Your task to perform on an android device: turn notification dots on Image 0: 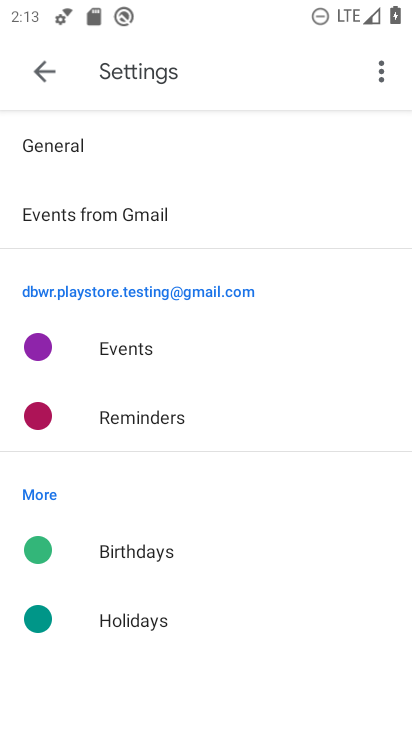
Step 0: press home button
Your task to perform on an android device: turn notification dots on Image 1: 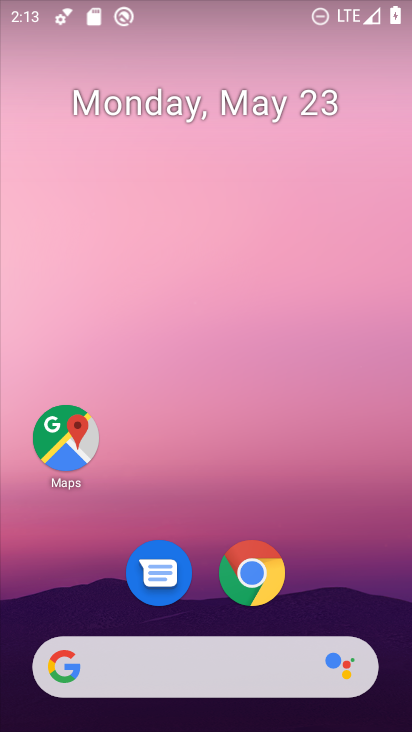
Step 1: drag from (355, 500) to (346, 116)
Your task to perform on an android device: turn notification dots on Image 2: 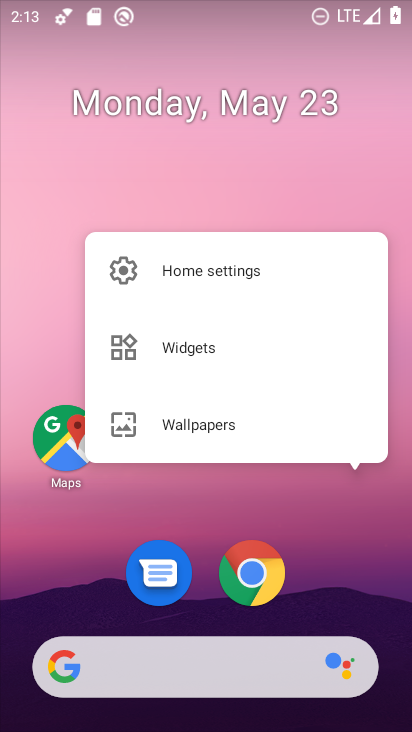
Step 2: click (252, 209)
Your task to perform on an android device: turn notification dots on Image 3: 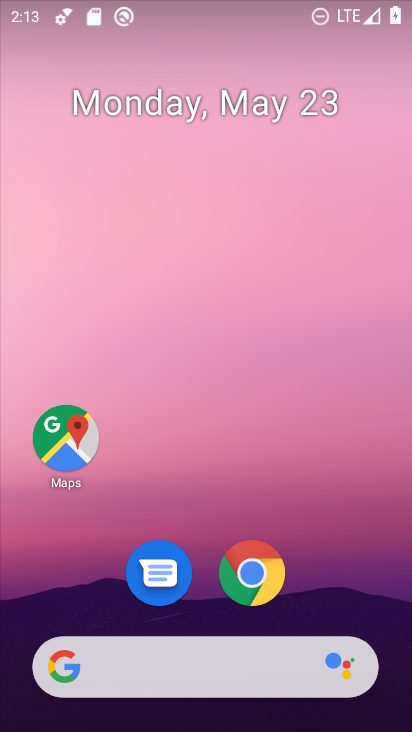
Step 3: click (274, 176)
Your task to perform on an android device: turn notification dots on Image 4: 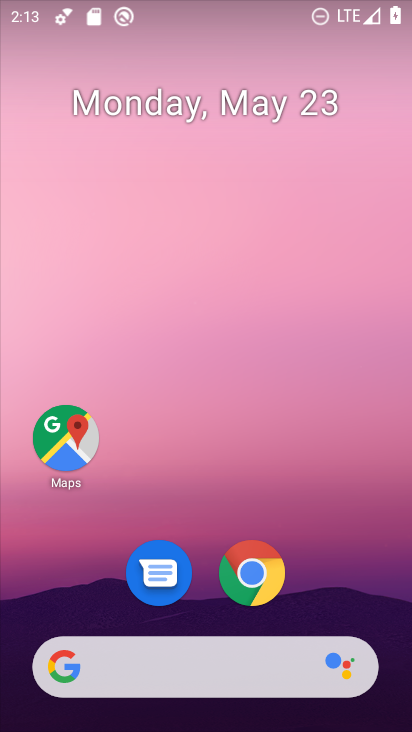
Step 4: drag from (294, 412) to (286, 93)
Your task to perform on an android device: turn notification dots on Image 5: 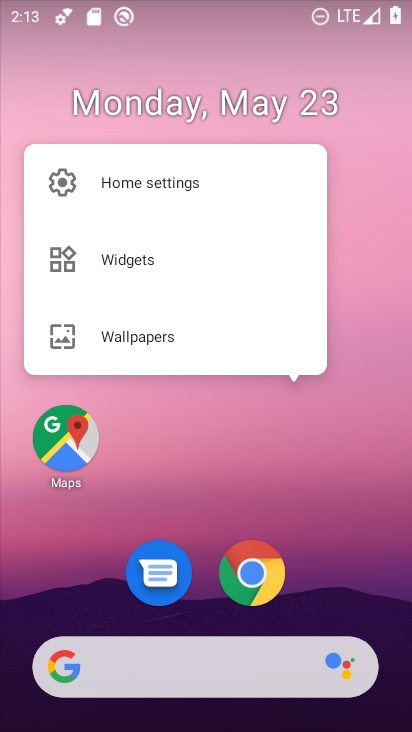
Step 5: click (291, 445)
Your task to perform on an android device: turn notification dots on Image 6: 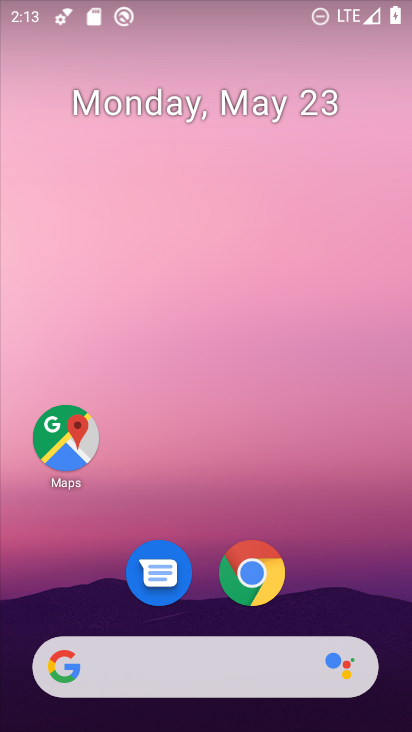
Step 6: drag from (355, 522) to (341, 120)
Your task to perform on an android device: turn notification dots on Image 7: 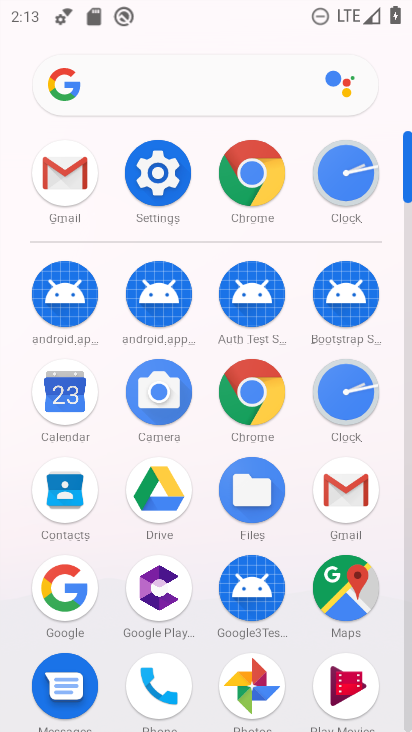
Step 7: click (166, 190)
Your task to perform on an android device: turn notification dots on Image 8: 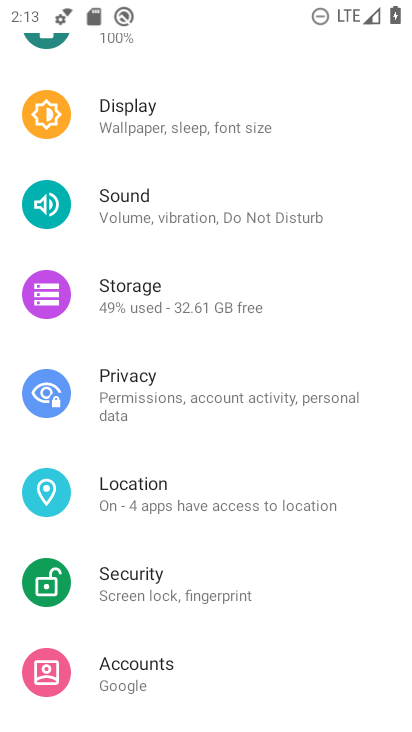
Step 8: drag from (202, 403) to (248, 142)
Your task to perform on an android device: turn notification dots on Image 9: 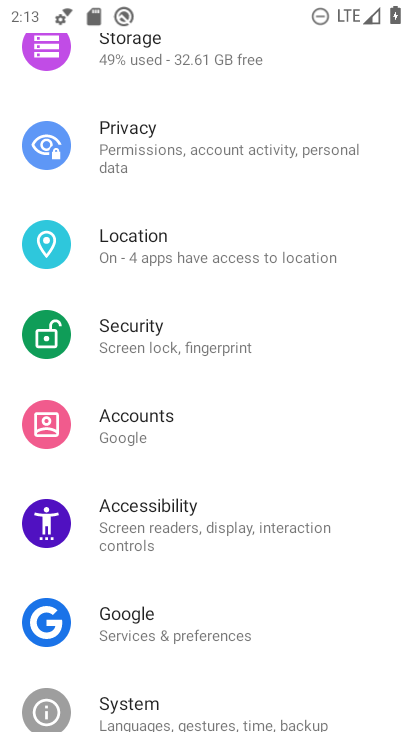
Step 9: drag from (241, 314) to (220, 711)
Your task to perform on an android device: turn notification dots on Image 10: 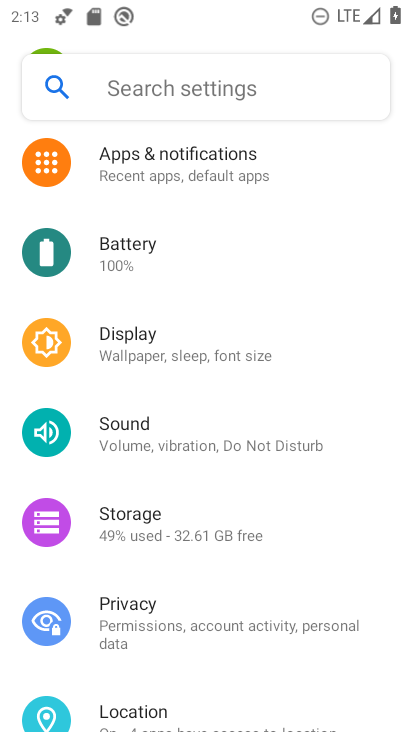
Step 10: click (222, 171)
Your task to perform on an android device: turn notification dots on Image 11: 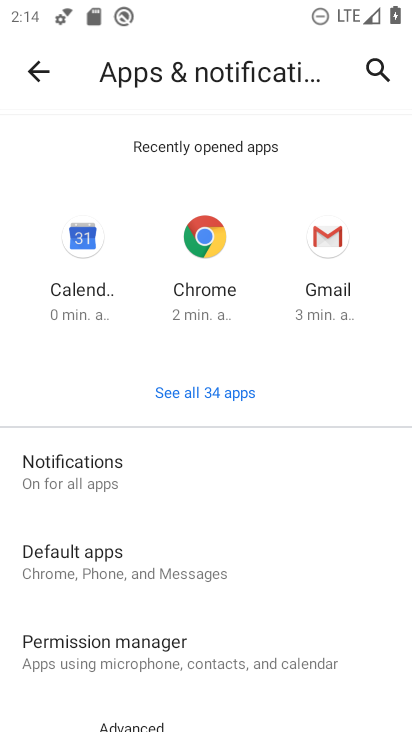
Step 11: click (142, 486)
Your task to perform on an android device: turn notification dots on Image 12: 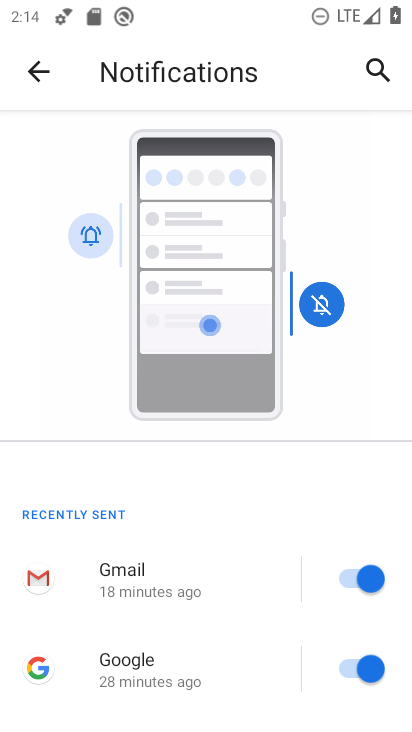
Step 12: drag from (241, 452) to (283, 106)
Your task to perform on an android device: turn notification dots on Image 13: 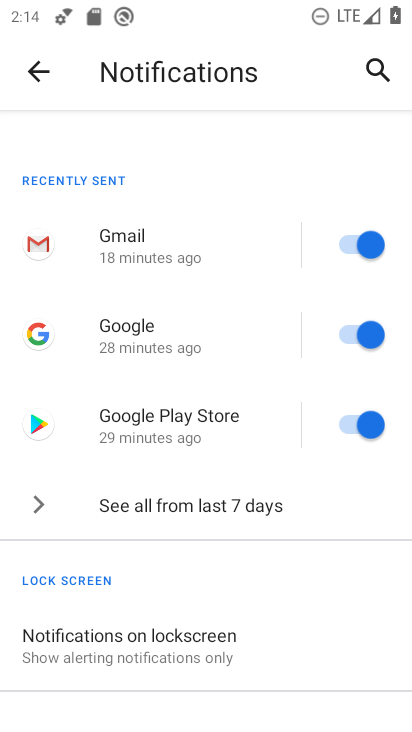
Step 13: drag from (229, 653) to (237, 95)
Your task to perform on an android device: turn notification dots on Image 14: 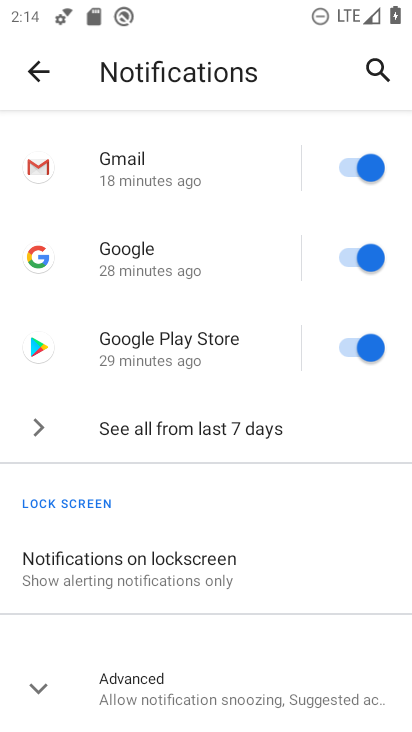
Step 14: click (193, 716)
Your task to perform on an android device: turn notification dots on Image 15: 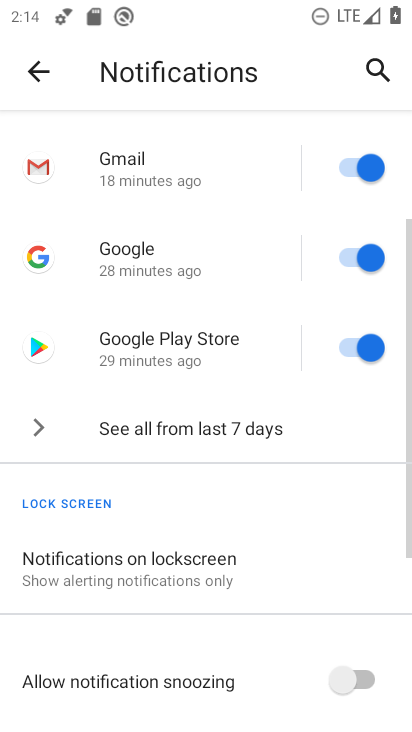
Step 15: task complete